Your task to perform on an android device: Find coffee shops on Maps Image 0: 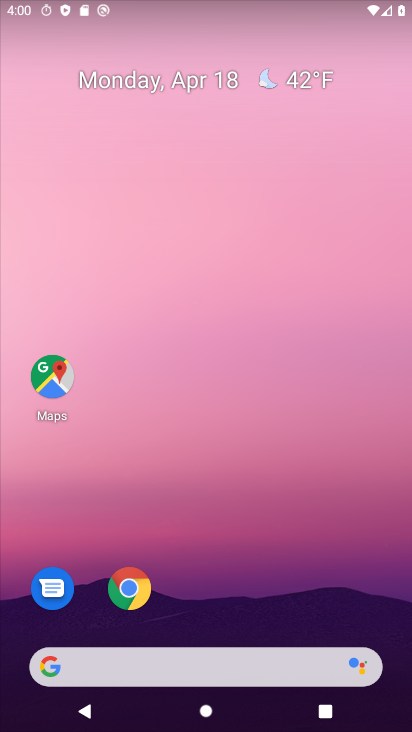
Step 0: click (35, 386)
Your task to perform on an android device: Find coffee shops on Maps Image 1: 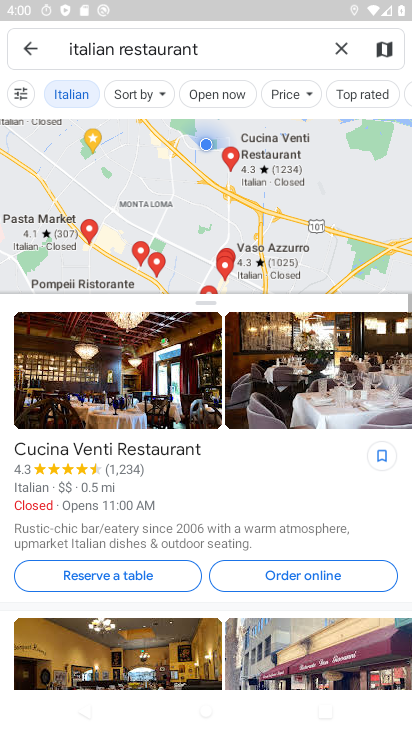
Step 1: click (340, 55)
Your task to perform on an android device: Find coffee shops on Maps Image 2: 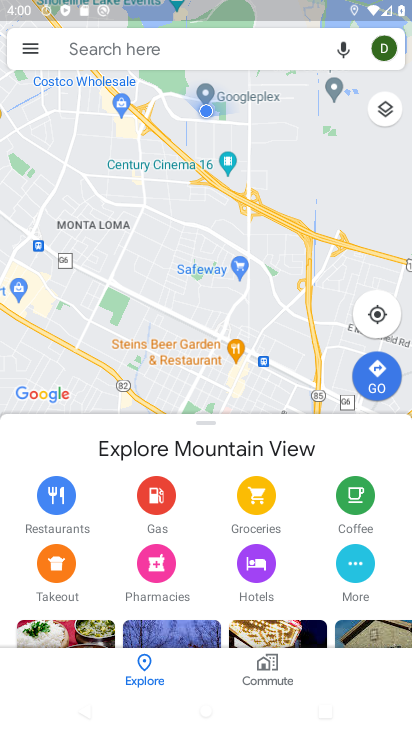
Step 2: click (217, 40)
Your task to perform on an android device: Find coffee shops on Maps Image 3: 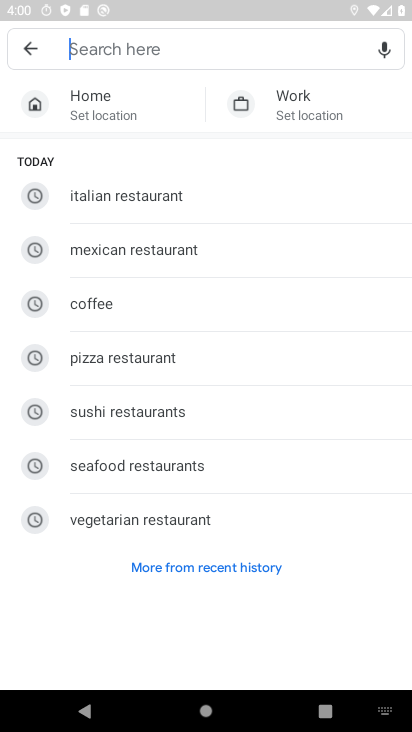
Step 3: click (87, 296)
Your task to perform on an android device: Find coffee shops on Maps Image 4: 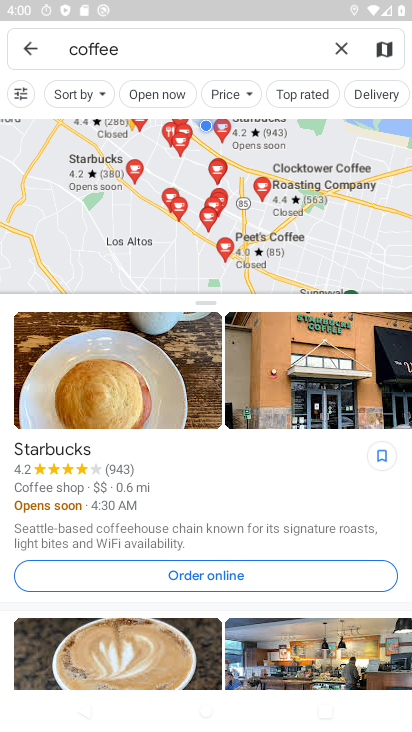
Step 4: task complete